Your task to perform on an android device: Clear the cart on walmart.com. Search for razer kraken on walmart.com, select the first entry, add it to the cart, then select checkout. Image 0: 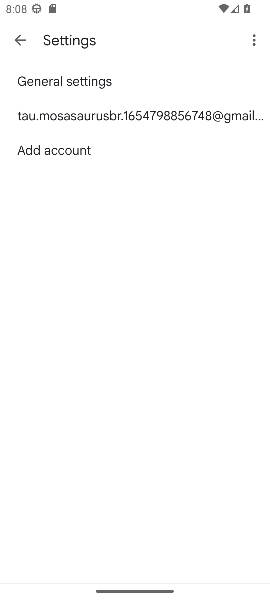
Step 0: press home button
Your task to perform on an android device: Clear the cart on walmart.com. Search for razer kraken on walmart.com, select the first entry, add it to the cart, then select checkout. Image 1: 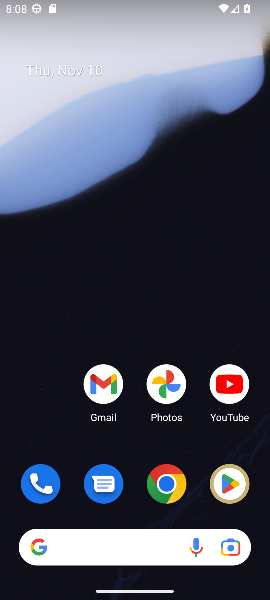
Step 1: click (168, 484)
Your task to perform on an android device: Clear the cart on walmart.com. Search for razer kraken on walmart.com, select the first entry, add it to the cart, then select checkout. Image 2: 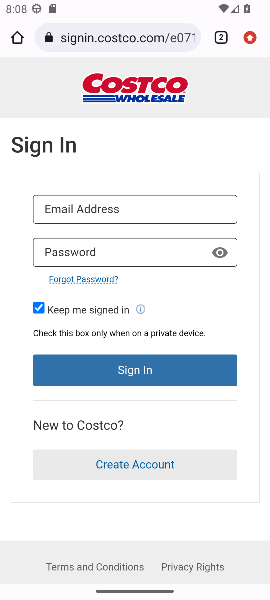
Step 2: click (102, 40)
Your task to perform on an android device: Clear the cart on walmart.com. Search for razer kraken on walmart.com, select the first entry, add it to the cart, then select checkout. Image 3: 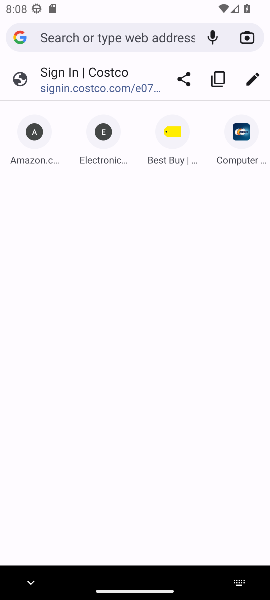
Step 3: type "walmart.com"
Your task to perform on an android device: Clear the cart on walmart.com. Search for razer kraken on walmart.com, select the first entry, add it to the cart, then select checkout. Image 4: 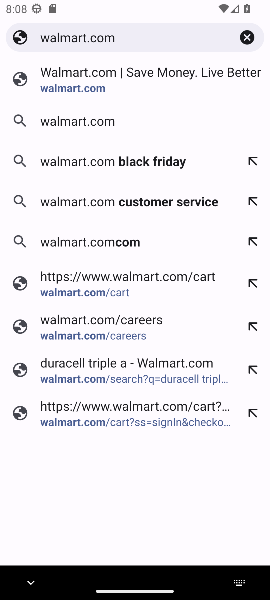
Step 4: click (89, 95)
Your task to perform on an android device: Clear the cart on walmart.com. Search for razer kraken on walmart.com, select the first entry, add it to the cart, then select checkout. Image 5: 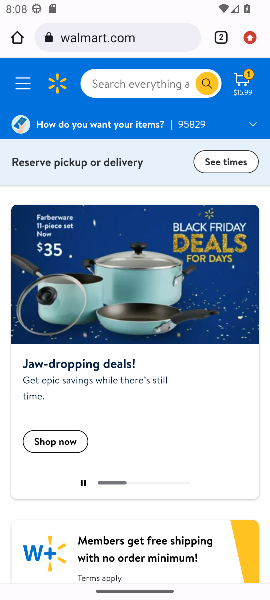
Step 5: click (244, 85)
Your task to perform on an android device: Clear the cart on walmart.com. Search for razer kraken on walmart.com, select the first entry, add it to the cart, then select checkout. Image 6: 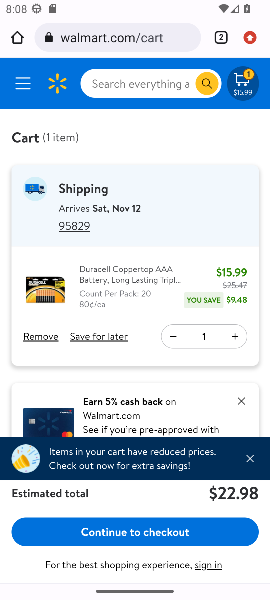
Step 6: click (37, 336)
Your task to perform on an android device: Clear the cart on walmart.com. Search for razer kraken on walmart.com, select the first entry, add it to the cart, then select checkout. Image 7: 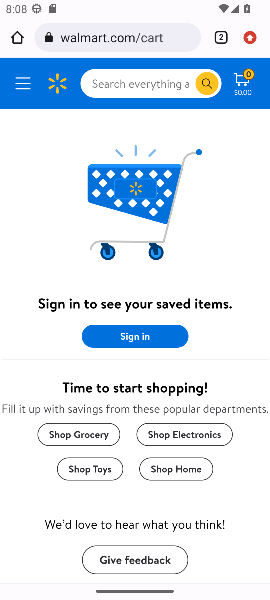
Step 7: click (120, 87)
Your task to perform on an android device: Clear the cart on walmart.com. Search for razer kraken on walmart.com, select the first entry, add it to the cart, then select checkout. Image 8: 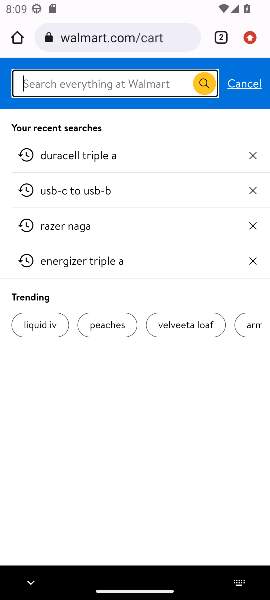
Step 8: type " razer kraken"
Your task to perform on an android device: Clear the cart on walmart.com. Search for razer kraken on walmart.com, select the first entry, add it to the cart, then select checkout. Image 9: 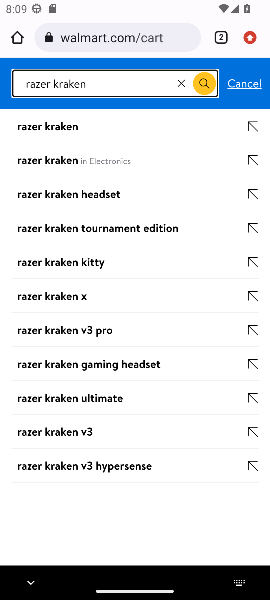
Step 9: click (56, 123)
Your task to perform on an android device: Clear the cart on walmart.com. Search for razer kraken on walmart.com, select the first entry, add it to the cart, then select checkout. Image 10: 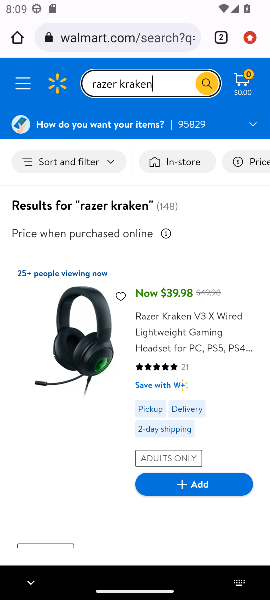
Step 10: click (182, 482)
Your task to perform on an android device: Clear the cart on walmart.com. Search for razer kraken on walmart.com, select the first entry, add it to the cart, then select checkout. Image 11: 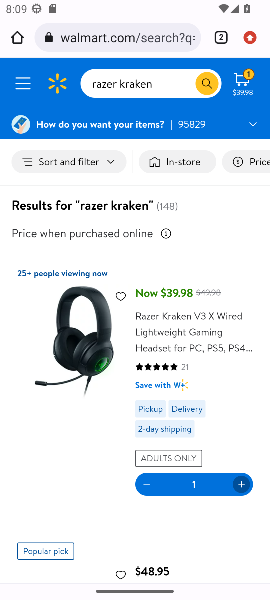
Step 11: click (244, 86)
Your task to perform on an android device: Clear the cart on walmart.com. Search for razer kraken on walmart.com, select the first entry, add it to the cart, then select checkout. Image 12: 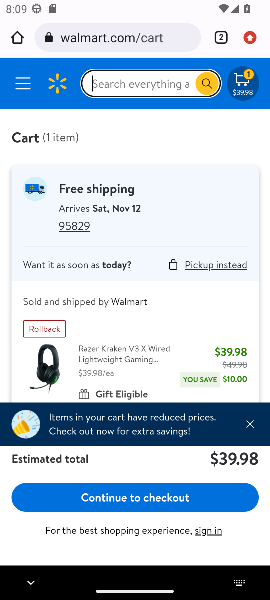
Step 12: click (137, 501)
Your task to perform on an android device: Clear the cart on walmart.com. Search for razer kraken on walmart.com, select the first entry, add it to the cart, then select checkout. Image 13: 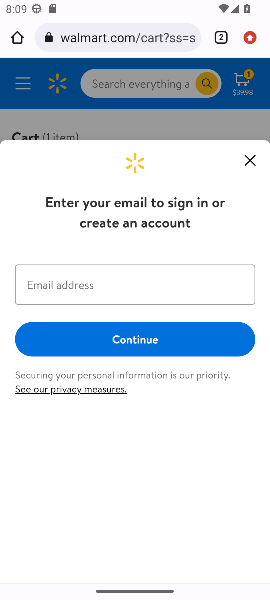
Step 13: task complete